Your task to perform on an android device: open app "Google News" Image 0: 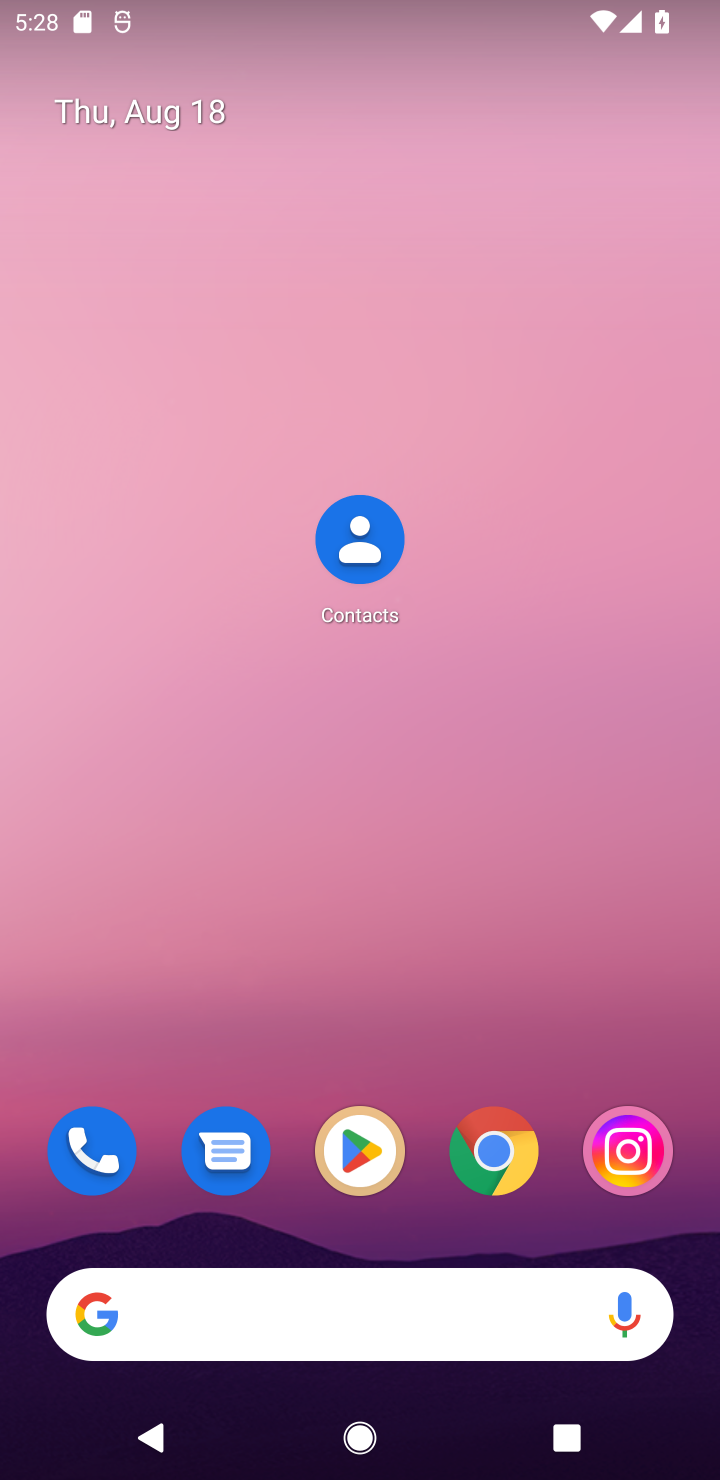
Step 0: click (376, 1175)
Your task to perform on an android device: open app "Google News" Image 1: 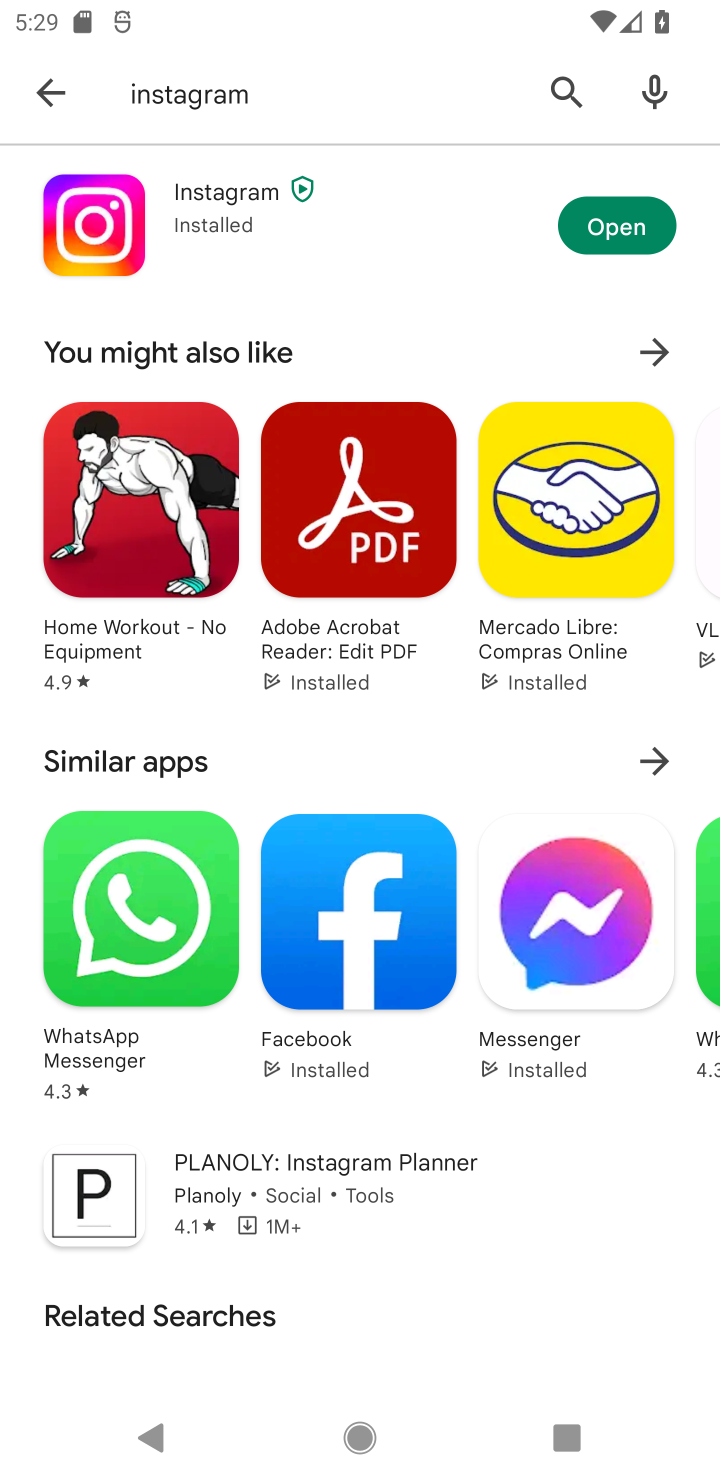
Step 1: click (551, 81)
Your task to perform on an android device: open app "Google News" Image 2: 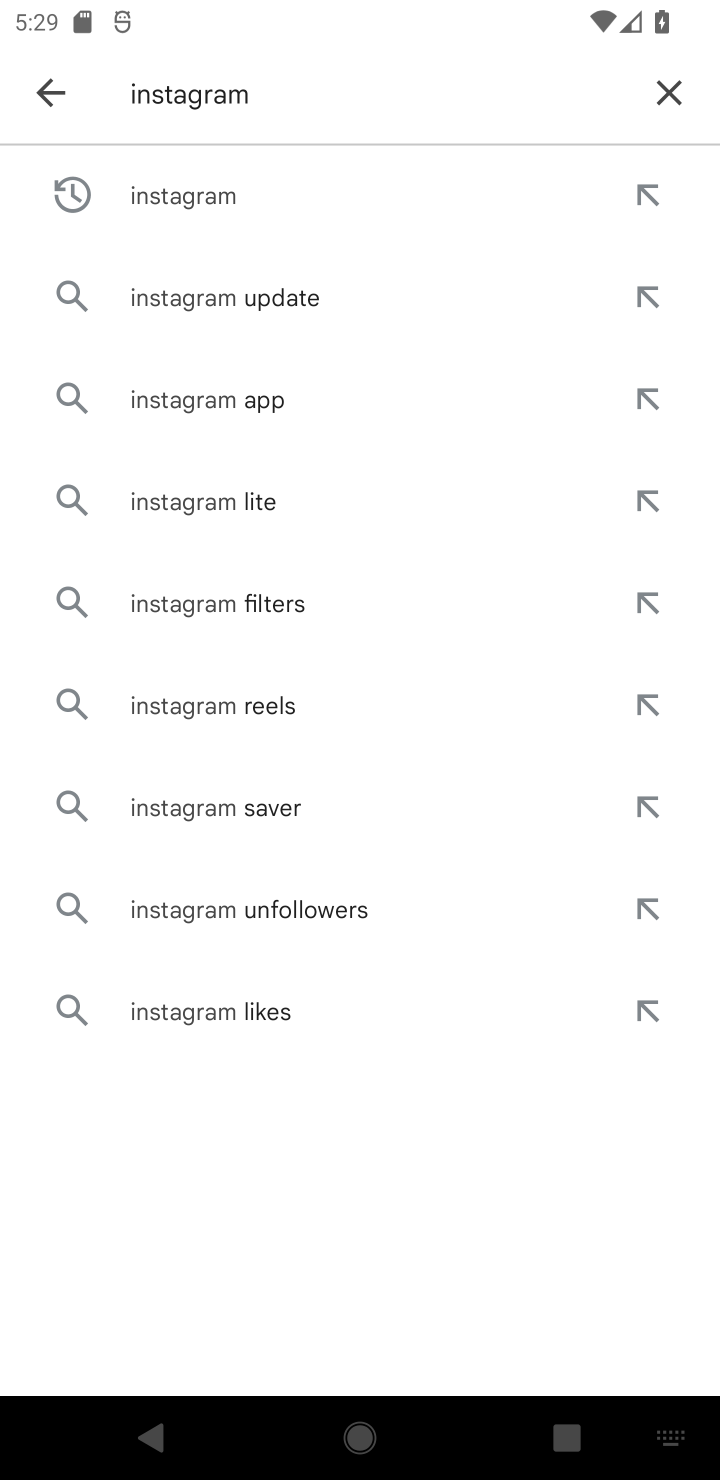
Step 2: click (673, 112)
Your task to perform on an android device: open app "Google News" Image 3: 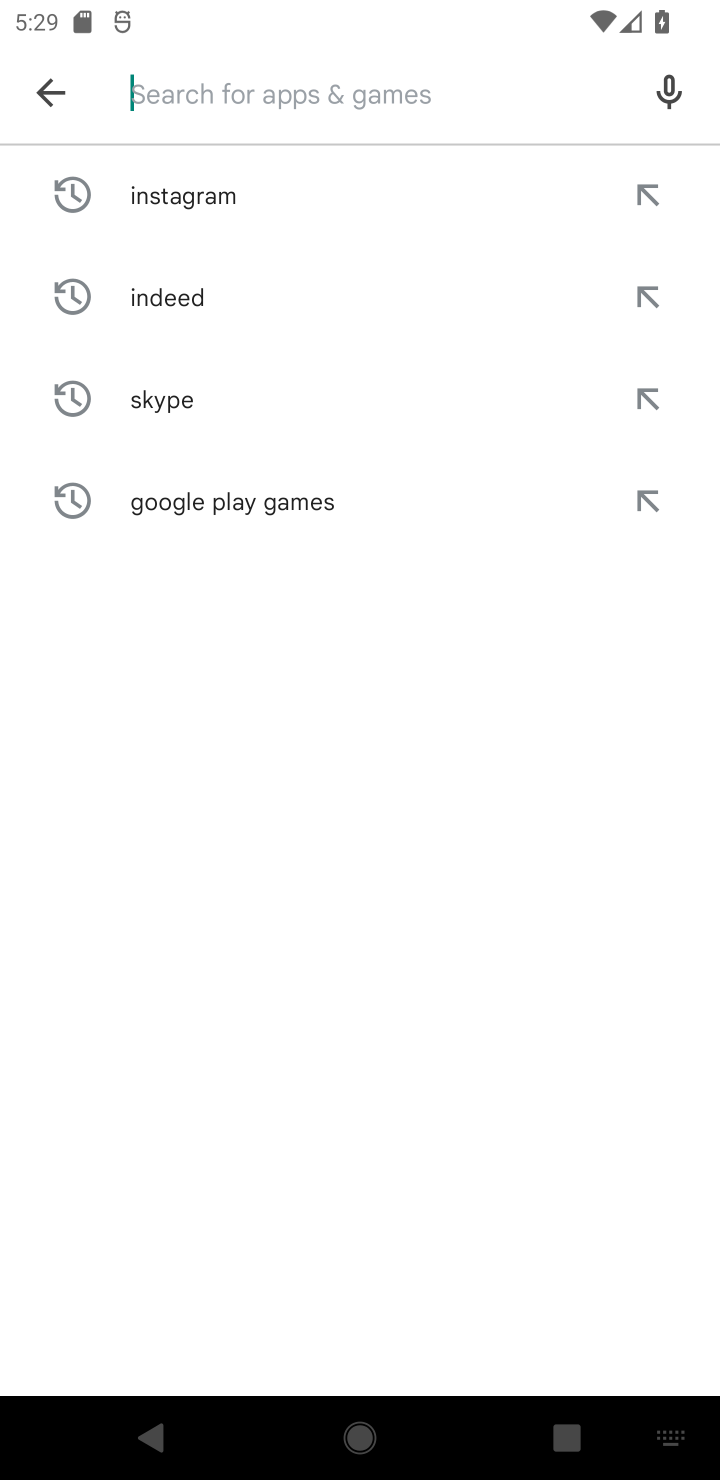
Step 3: type "google news"
Your task to perform on an android device: open app "Google News" Image 4: 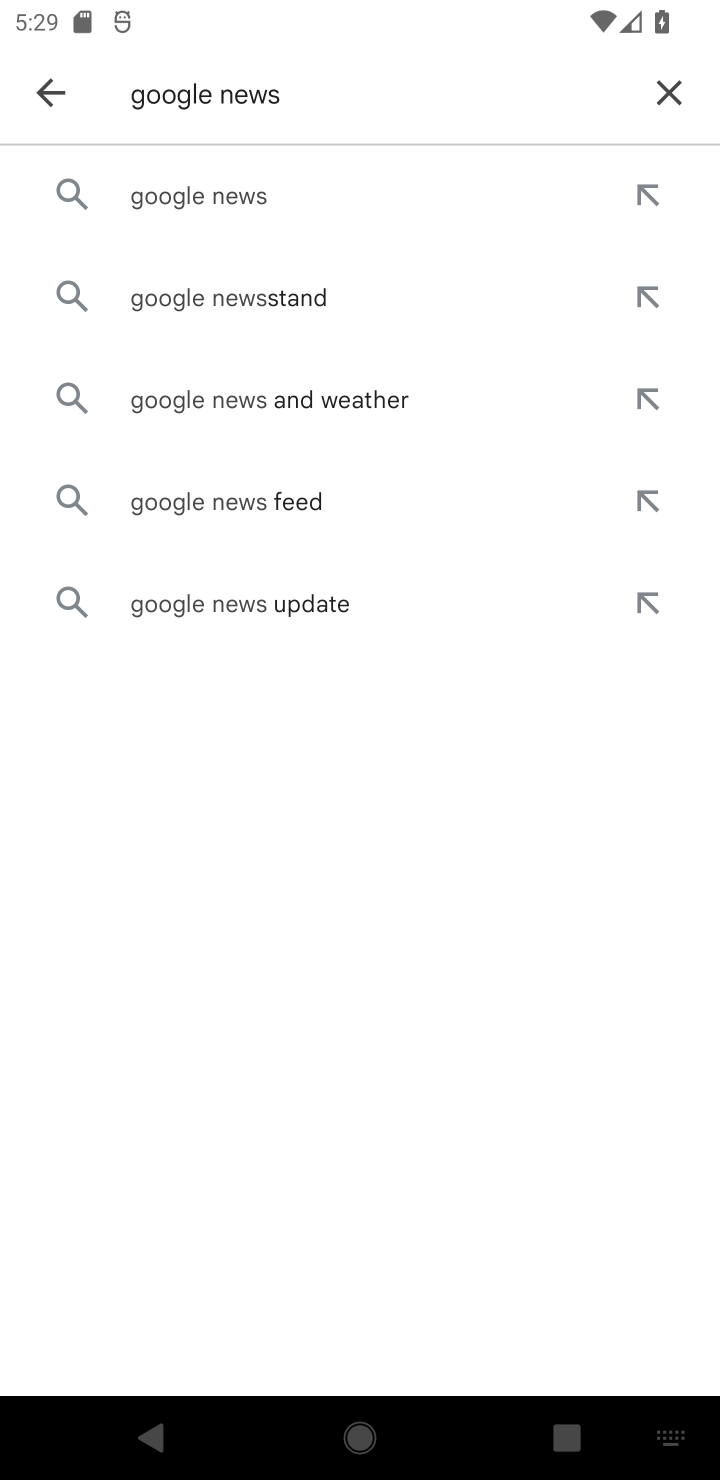
Step 4: click (181, 178)
Your task to perform on an android device: open app "Google News" Image 5: 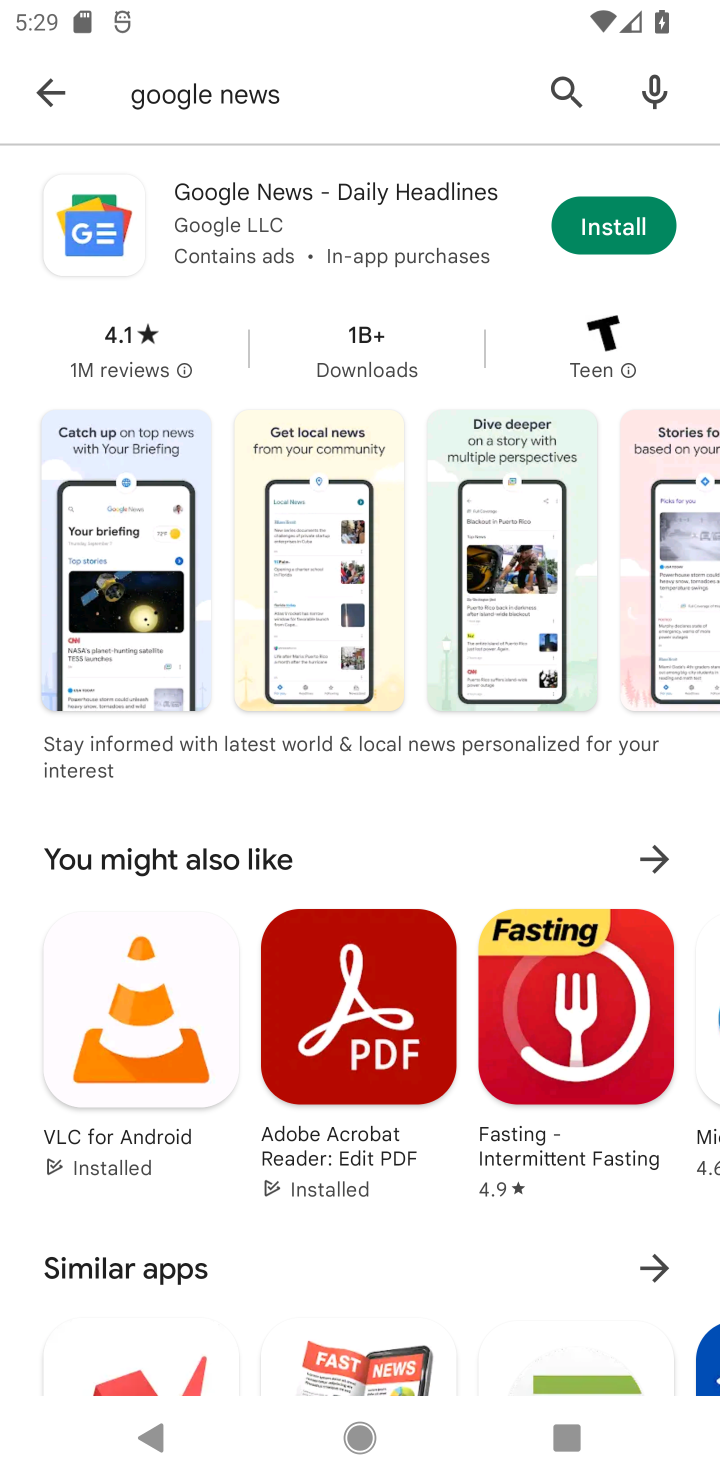
Step 5: click (621, 242)
Your task to perform on an android device: open app "Google News" Image 6: 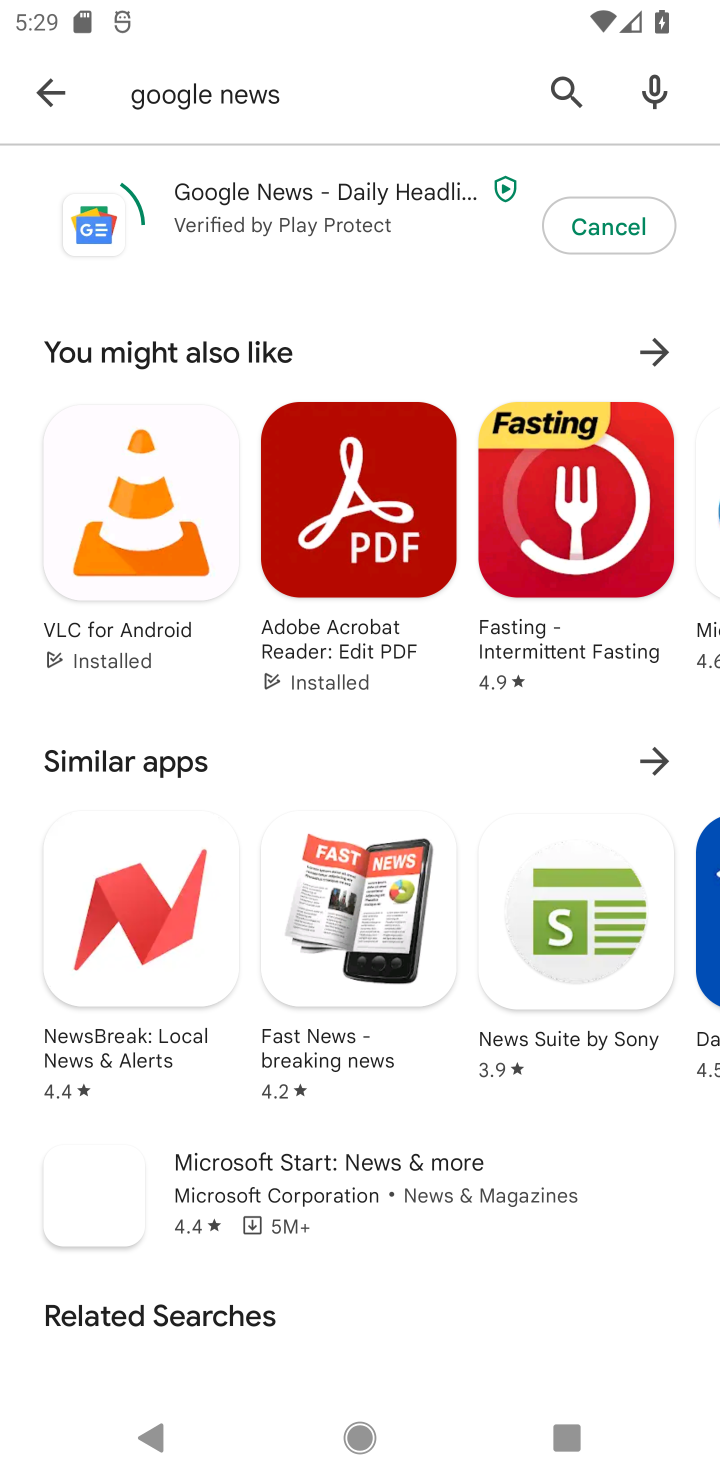
Step 6: task complete